Your task to perform on an android device: Go to Reddit.com Image 0: 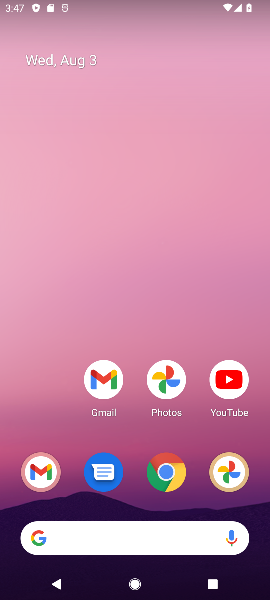
Step 0: click (162, 474)
Your task to perform on an android device: Go to Reddit.com Image 1: 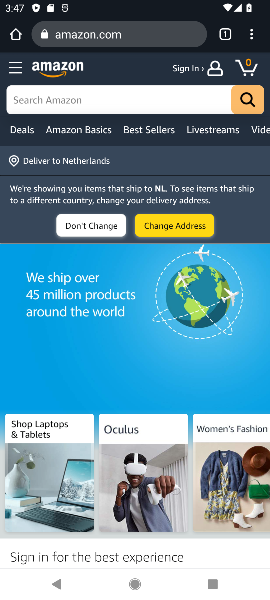
Step 1: click (225, 35)
Your task to perform on an android device: Go to Reddit.com Image 2: 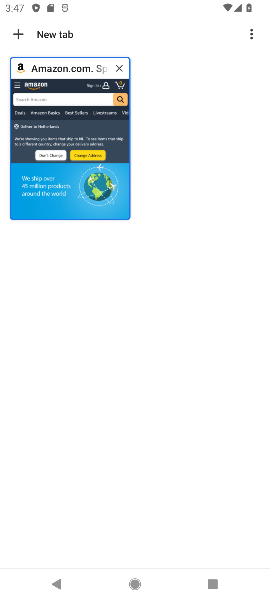
Step 2: click (14, 31)
Your task to perform on an android device: Go to Reddit.com Image 3: 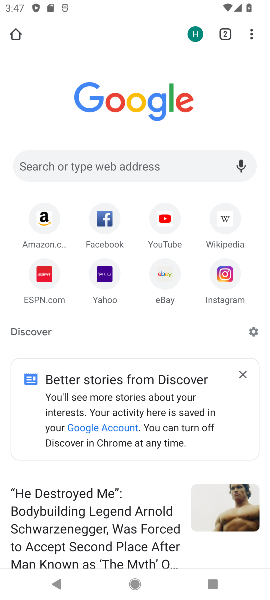
Step 3: click (94, 160)
Your task to perform on an android device: Go to Reddit.com Image 4: 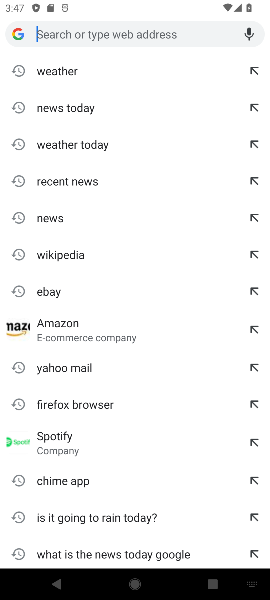
Step 4: type "reddit.com"
Your task to perform on an android device: Go to Reddit.com Image 5: 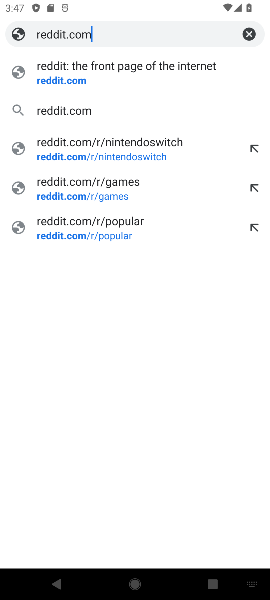
Step 5: click (99, 76)
Your task to perform on an android device: Go to Reddit.com Image 6: 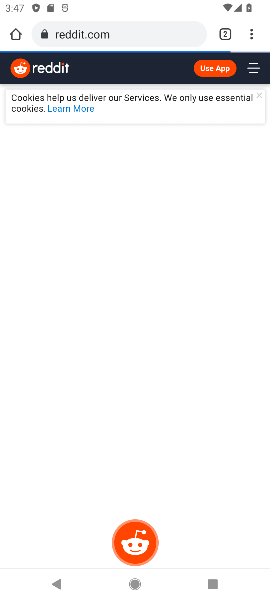
Step 6: task complete